Your task to perform on an android device: Open calendar and show me the first week of next month Image 0: 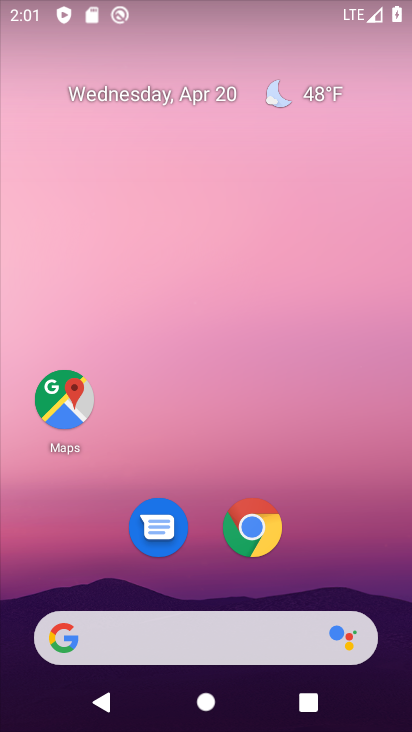
Step 0: click (202, 87)
Your task to perform on an android device: Open calendar and show me the first week of next month Image 1: 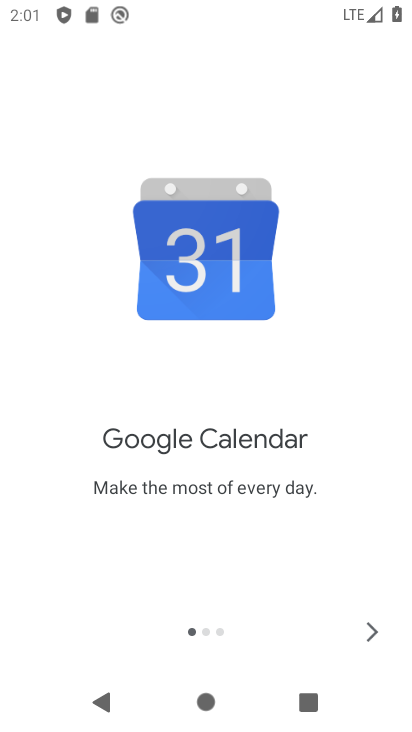
Step 1: click (374, 622)
Your task to perform on an android device: Open calendar and show me the first week of next month Image 2: 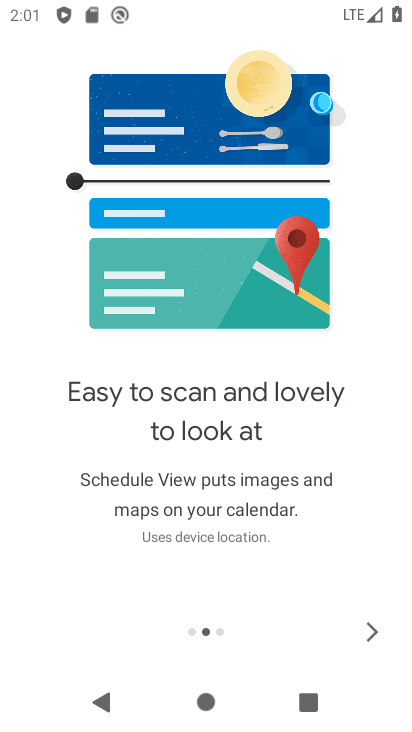
Step 2: click (375, 623)
Your task to perform on an android device: Open calendar and show me the first week of next month Image 3: 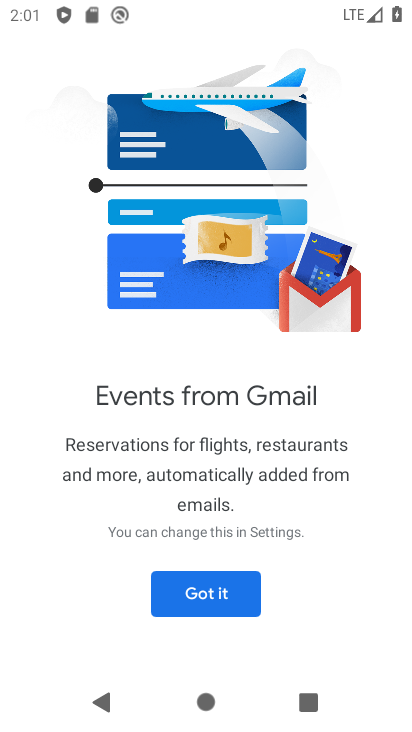
Step 3: click (172, 586)
Your task to perform on an android device: Open calendar and show me the first week of next month Image 4: 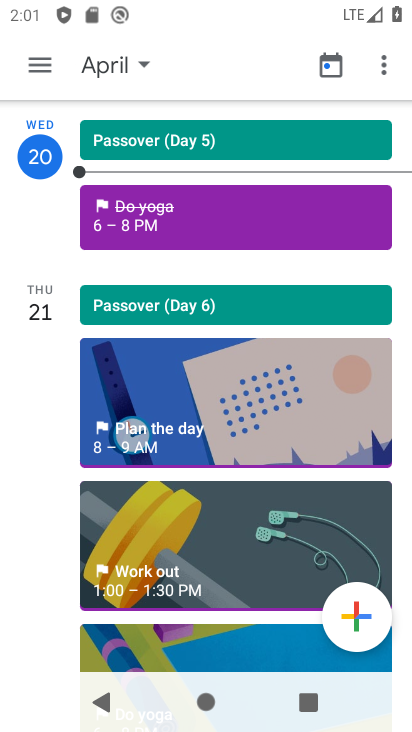
Step 4: click (127, 73)
Your task to perform on an android device: Open calendar and show me the first week of next month Image 5: 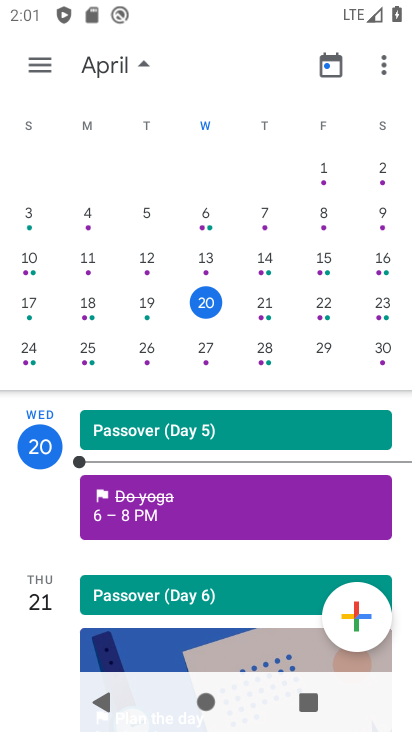
Step 5: task complete